Your task to perform on an android device: Go to calendar. Show me events next week Image 0: 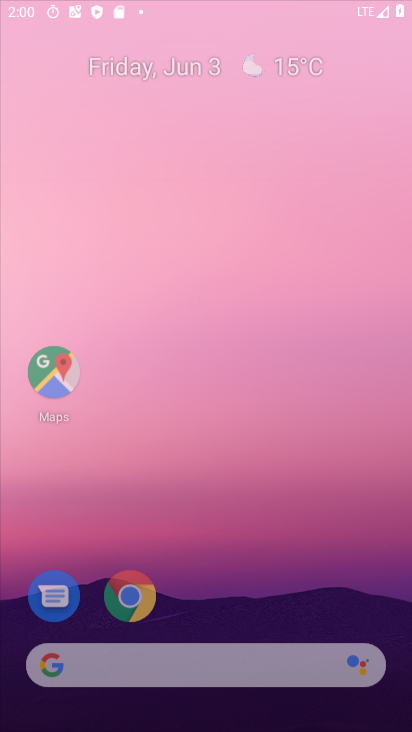
Step 0: click (242, 727)
Your task to perform on an android device: Go to calendar. Show me events next week Image 1: 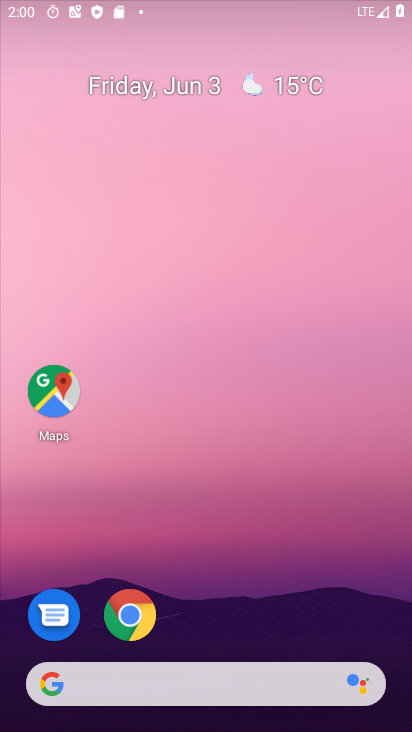
Step 1: drag from (306, 358) to (240, 728)
Your task to perform on an android device: Go to calendar. Show me events next week Image 2: 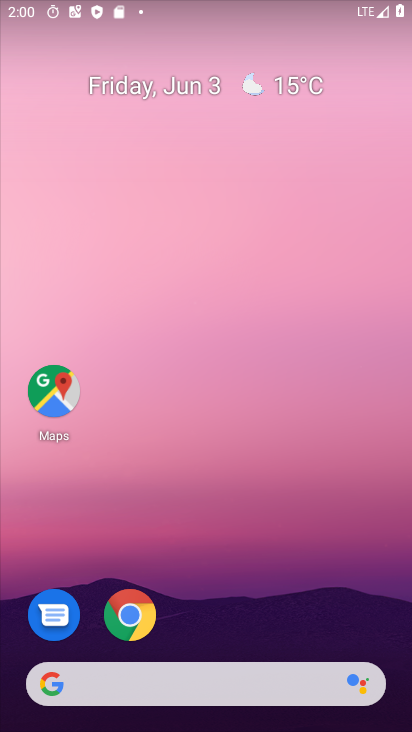
Step 2: drag from (209, 526) to (340, 12)
Your task to perform on an android device: Go to calendar. Show me events next week Image 3: 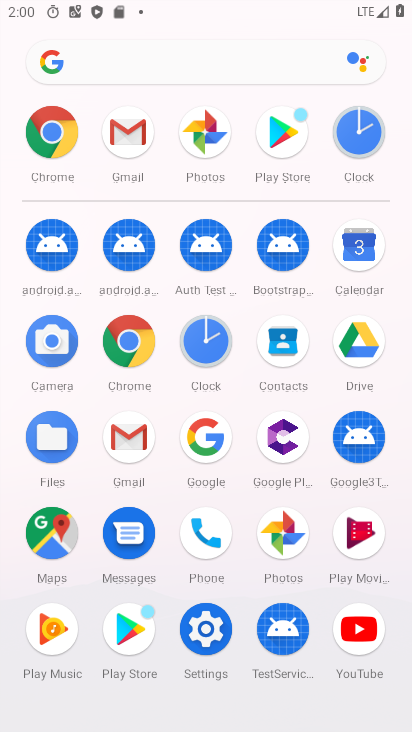
Step 3: click (355, 236)
Your task to perform on an android device: Go to calendar. Show me events next week Image 4: 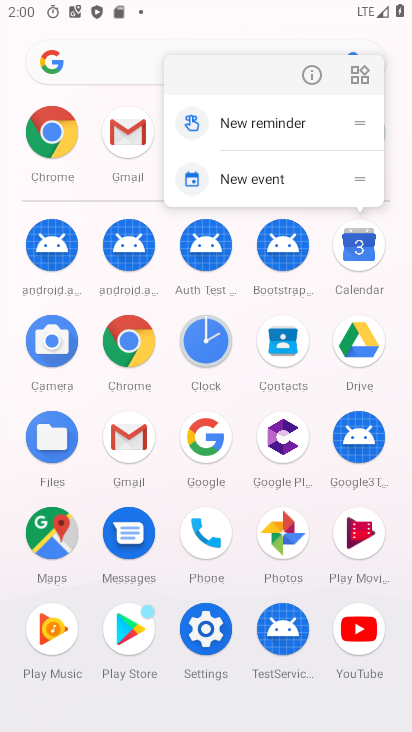
Step 4: click (304, 74)
Your task to perform on an android device: Go to calendar. Show me events next week Image 5: 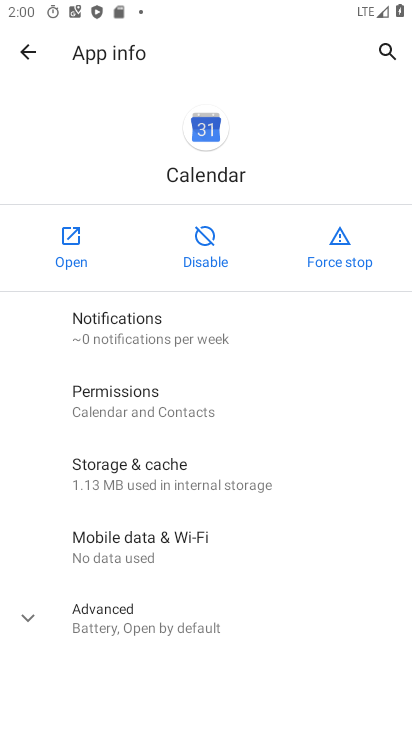
Step 5: click (65, 231)
Your task to perform on an android device: Go to calendar. Show me events next week Image 6: 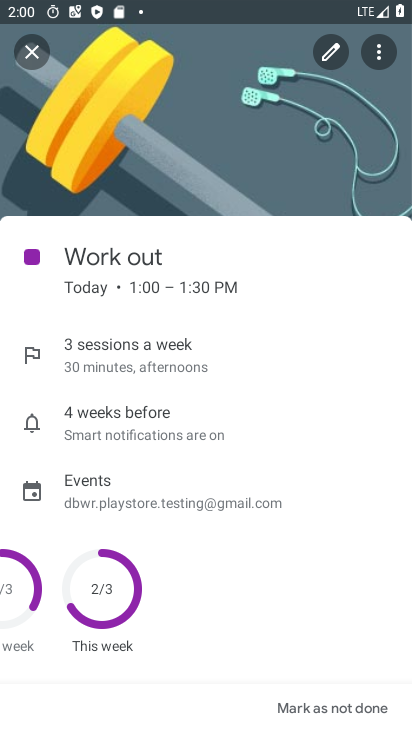
Step 6: drag from (211, 551) to (253, 126)
Your task to perform on an android device: Go to calendar. Show me events next week Image 7: 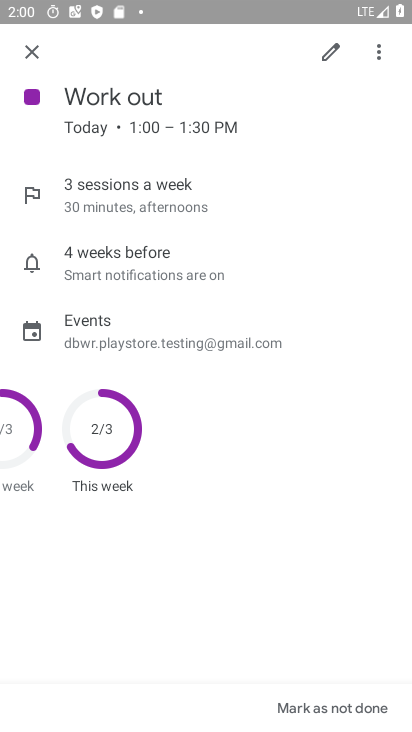
Step 7: drag from (271, 95) to (311, 724)
Your task to perform on an android device: Go to calendar. Show me events next week Image 8: 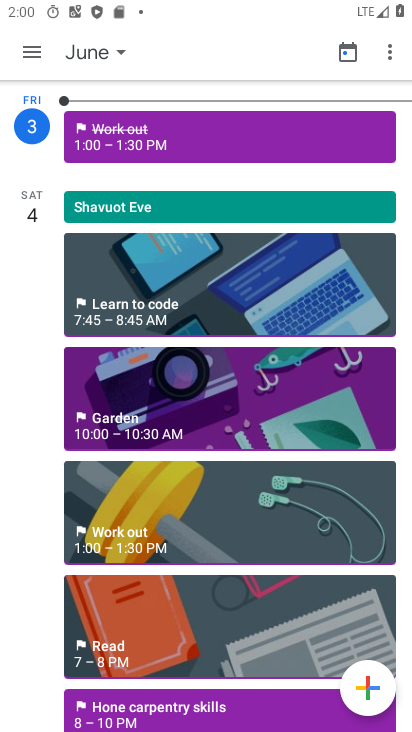
Step 8: drag from (203, 632) to (259, 160)
Your task to perform on an android device: Go to calendar. Show me events next week Image 9: 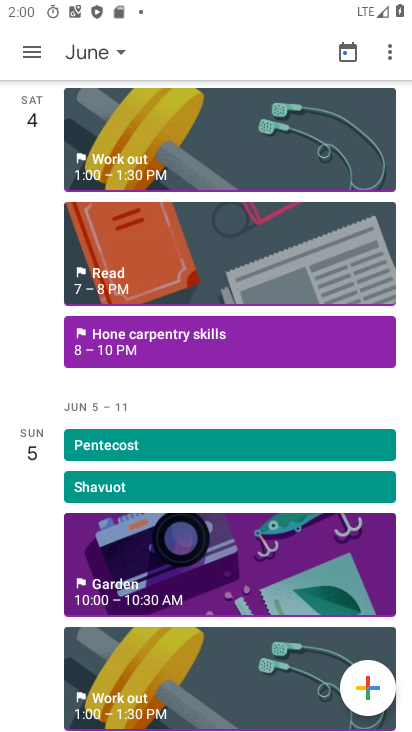
Step 9: drag from (225, 634) to (282, 189)
Your task to perform on an android device: Go to calendar. Show me events next week Image 10: 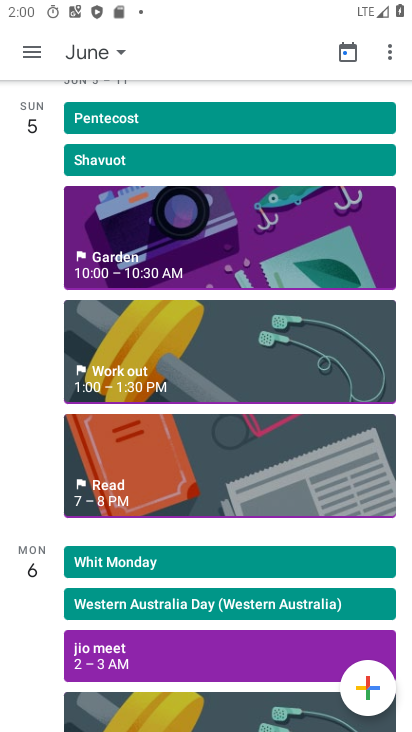
Step 10: drag from (287, 136) to (304, 563)
Your task to perform on an android device: Go to calendar. Show me events next week Image 11: 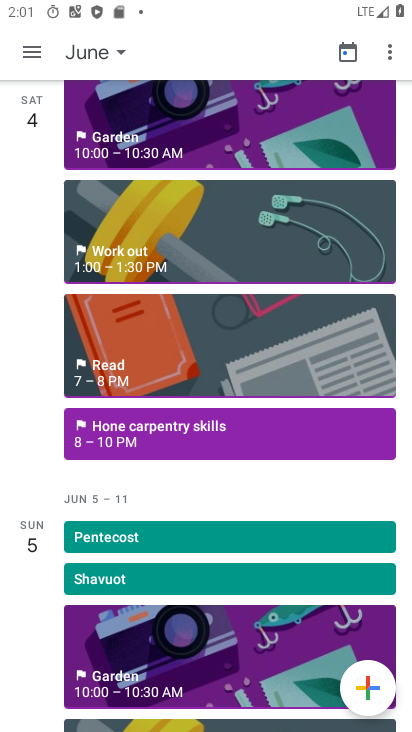
Step 11: drag from (249, 554) to (303, 136)
Your task to perform on an android device: Go to calendar. Show me events next week Image 12: 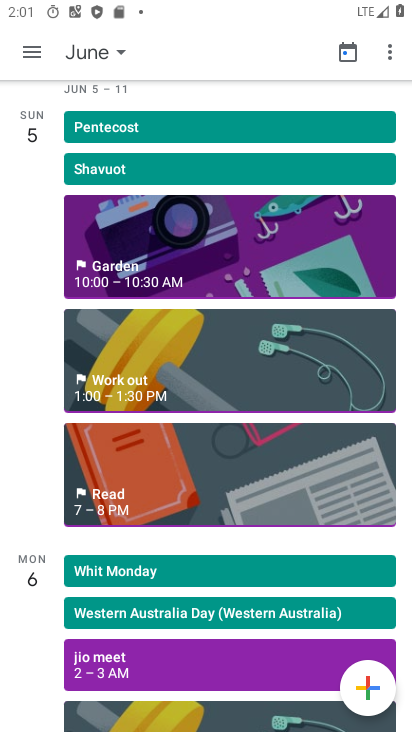
Step 12: drag from (221, 370) to (331, 725)
Your task to perform on an android device: Go to calendar. Show me events next week Image 13: 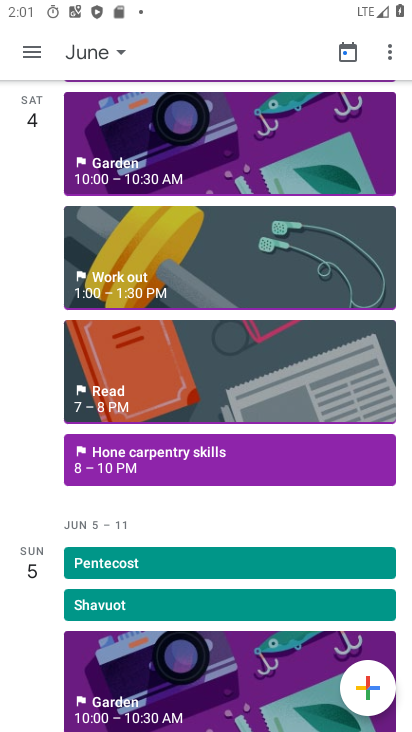
Step 13: click (91, 45)
Your task to perform on an android device: Go to calendar. Show me events next week Image 14: 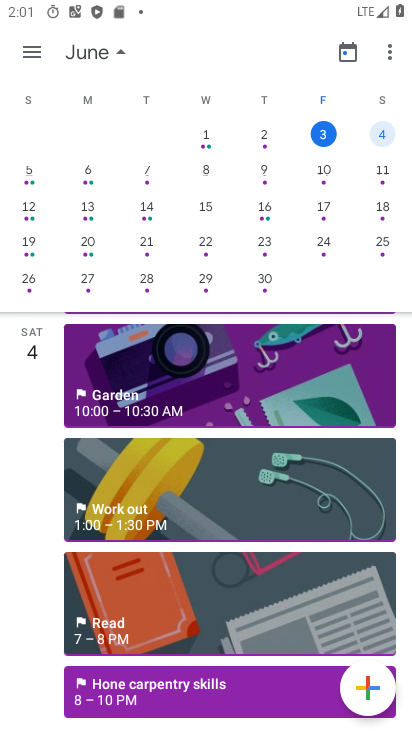
Step 14: click (314, 166)
Your task to perform on an android device: Go to calendar. Show me events next week Image 15: 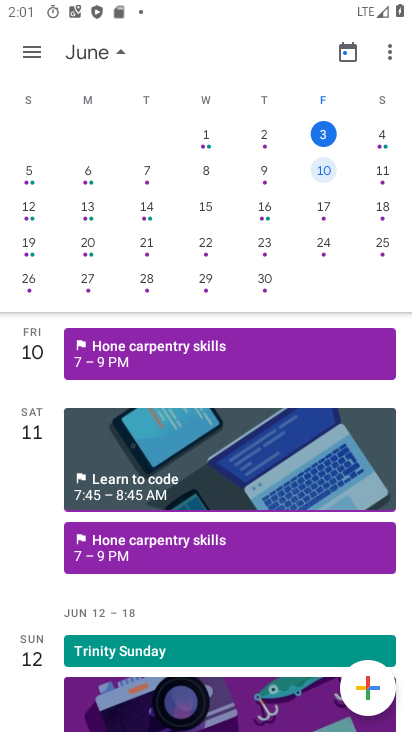
Step 15: task complete